Your task to perform on an android device: toggle javascript in the chrome app Image 0: 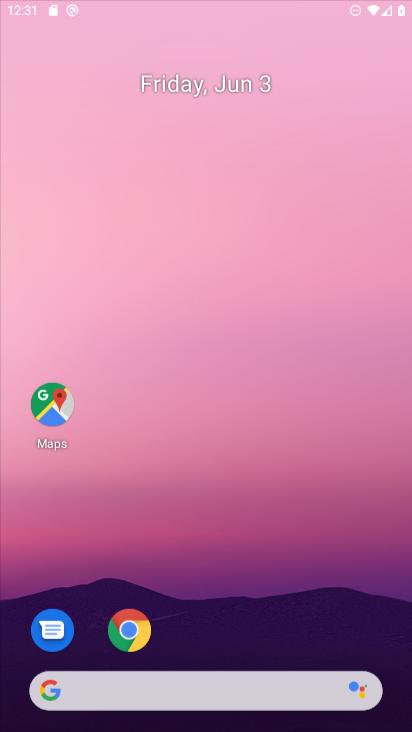
Step 0: click (229, 697)
Your task to perform on an android device: toggle javascript in the chrome app Image 1: 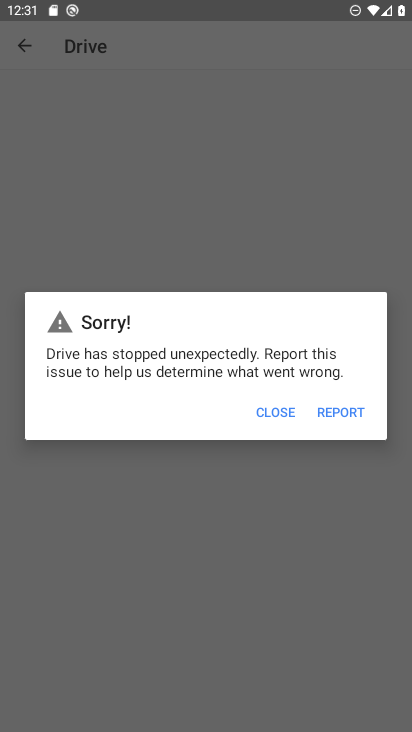
Step 1: press home button
Your task to perform on an android device: toggle javascript in the chrome app Image 2: 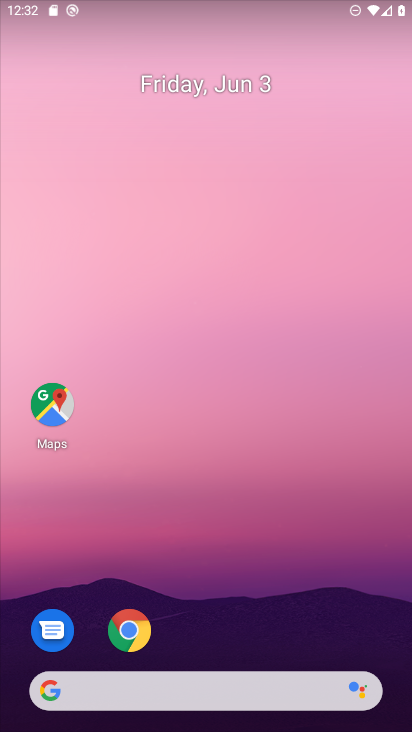
Step 2: click (138, 632)
Your task to perform on an android device: toggle javascript in the chrome app Image 3: 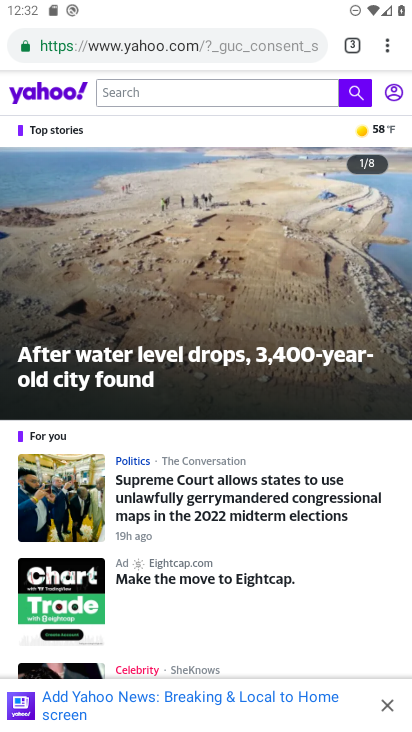
Step 3: click (391, 45)
Your task to perform on an android device: toggle javascript in the chrome app Image 4: 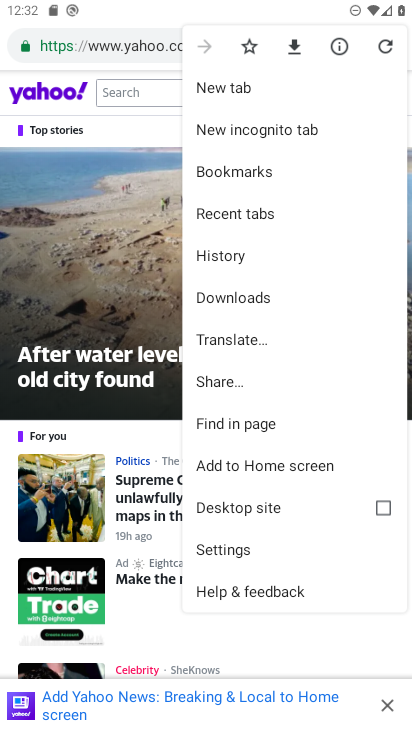
Step 4: click (289, 545)
Your task to perform on an android device: toggle javascript in the chrome app Image 5: 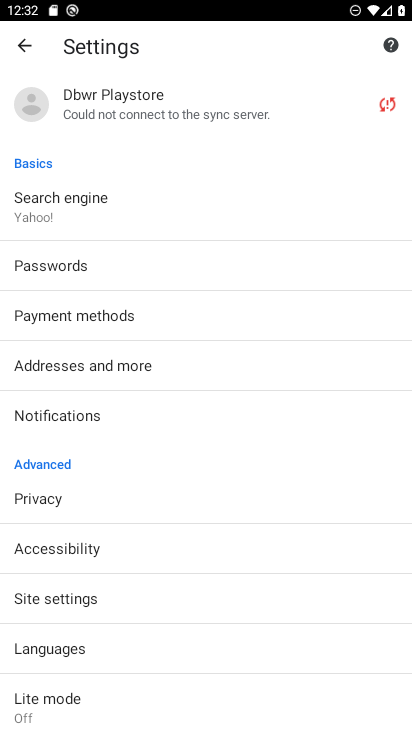
Step 5: drag from (241, 595) to (207, 321)
Your task to perform on an android device: toggle javascript in the chrome app Image 6: 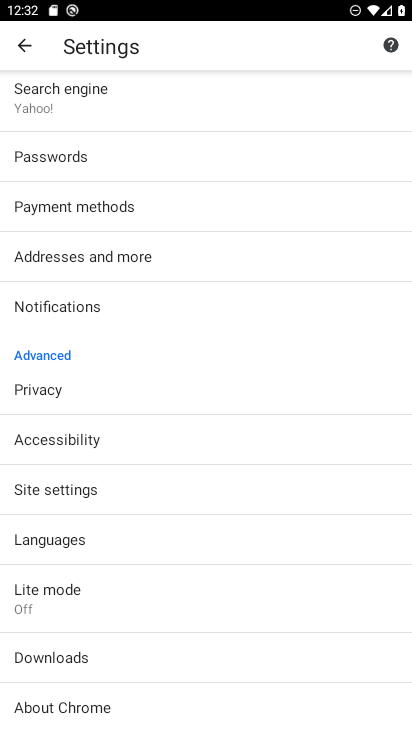
Step 6: click (187, 490)
Your task to perform on an android device: toggle javascript in the chrome app Image 7: 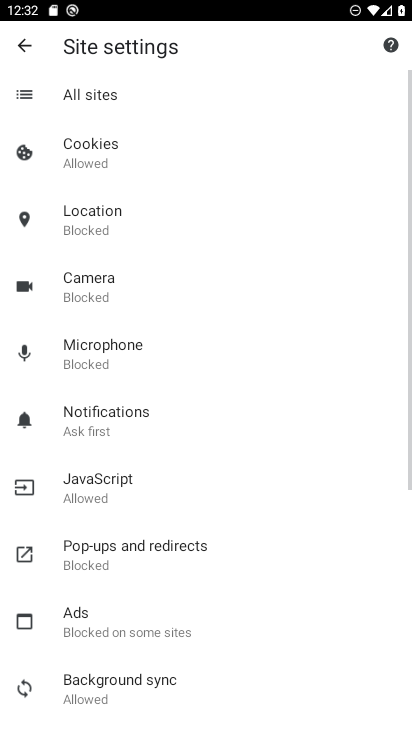
Step 7: click (187, 490)
Your task to perform on an android device: toggle javascript in the chrome app Image 8: 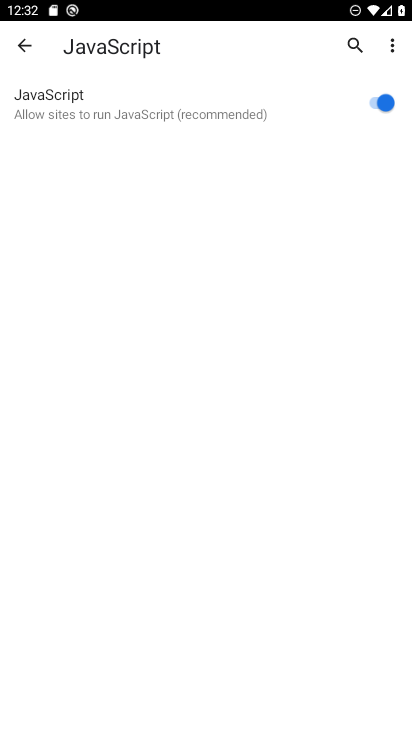
Step 8: click (385, 95)
Your task to perform on an android device: toggle javascript in the chrome app Image 9: 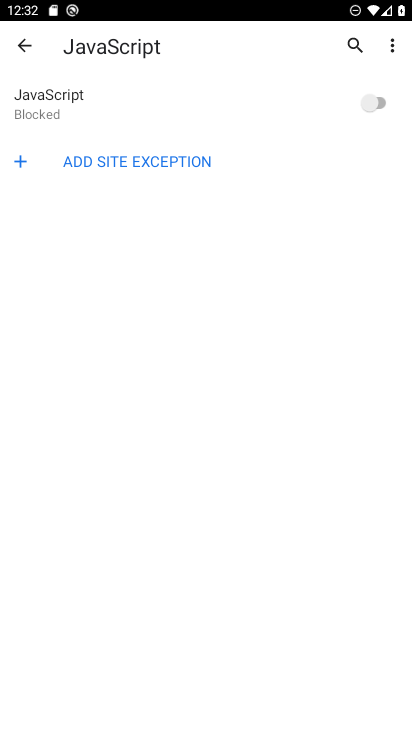
Step 9: task complete